Your task to perform on an android device: Search for Mexican restaurants on Maps Image 0: 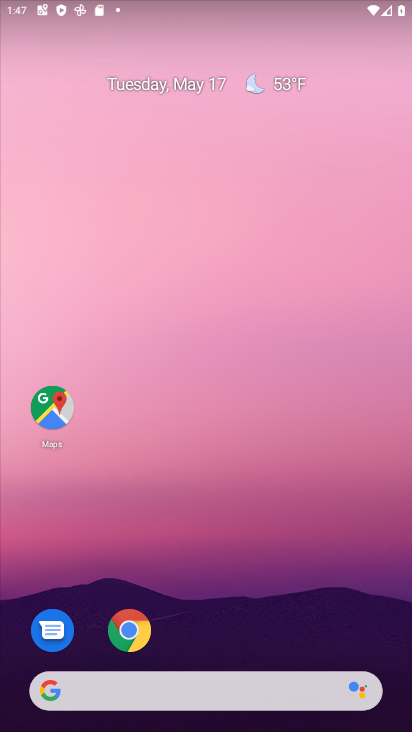
Step 0: drag from (250, 597) to (300, 285)
Your task to perform on an android device: Search for Mexican restaurants on Maps Image 1: 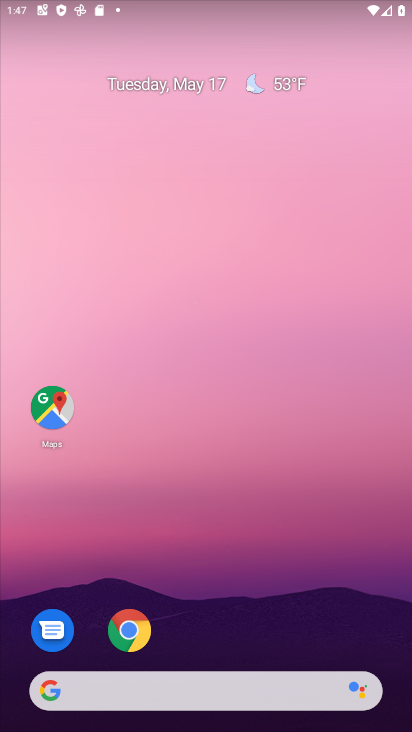
Step 1: drag from (270, 669) to (253, 127)
Your task to perform on an android device: Search for Mexican restaurants on Maps Image 2: 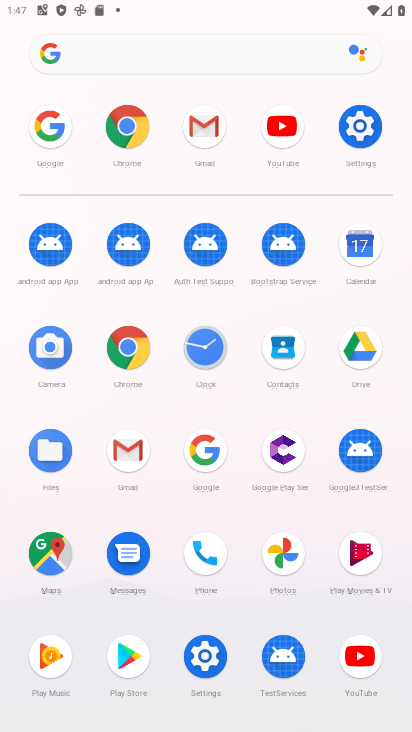
Step 2: click (58, 562)
Your task to perform on an android device: Search for Mexican restaurants on Maps Image 3: 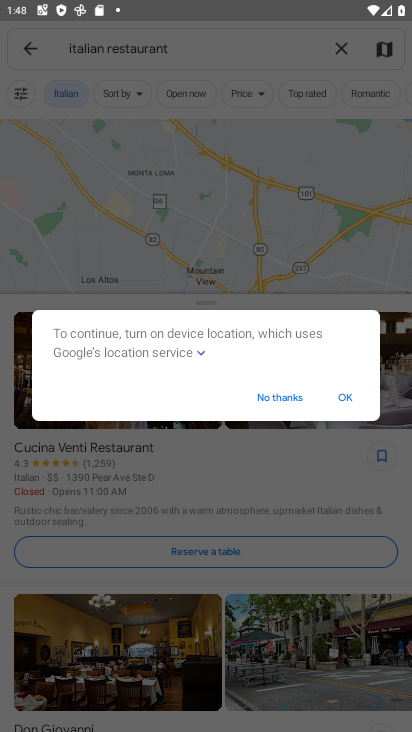
Step 3: click (337, 52)
Your task to perform on an android device: Search for Mexican restaurants on Maps Image 4: 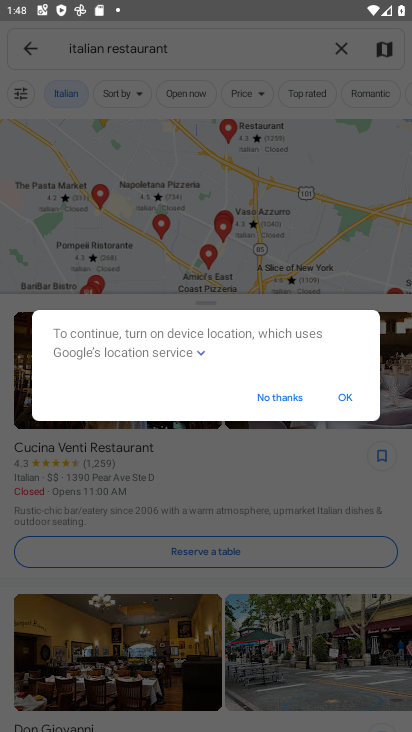
Step 4: click (277, 167)
Your task to perform on an android device: Search for Mexican restaurants on Maps Image 5: 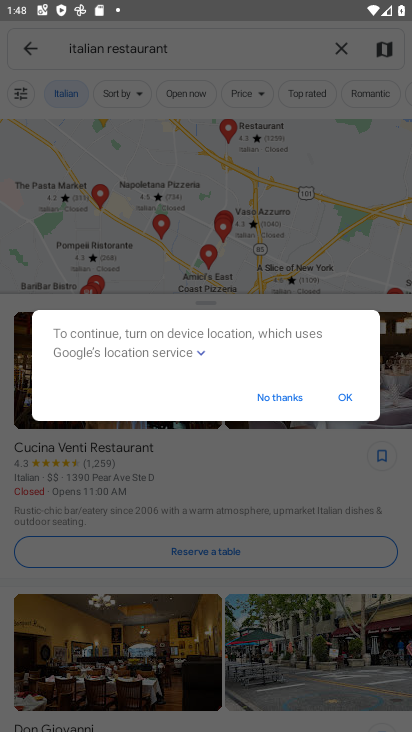
Step 5: click (340, 398)
Your task to perform on an android device: Search for Mexican restaurants on Maps Image 6: 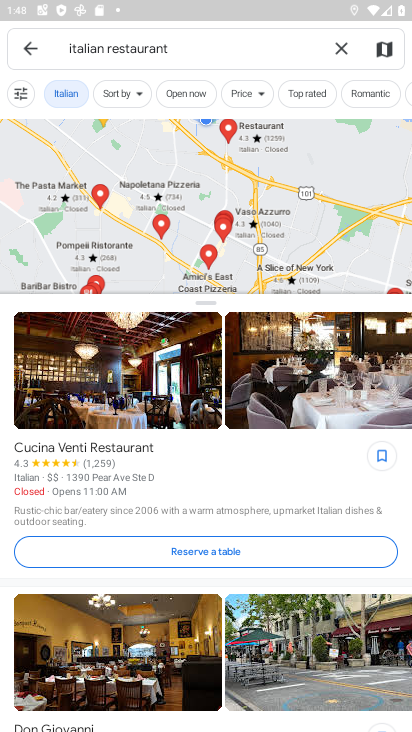
Step 6: click (334, 54)
Your task to perform on an android device: Search for Mexican restaurants on Maps Image 7: 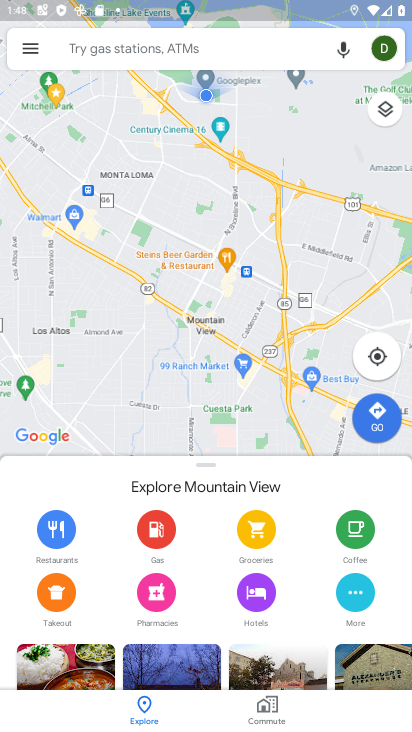
Step 7: click (200, 67)
Your task to perform on an android device: Search for Mexican restaurants on Maps Image 8: 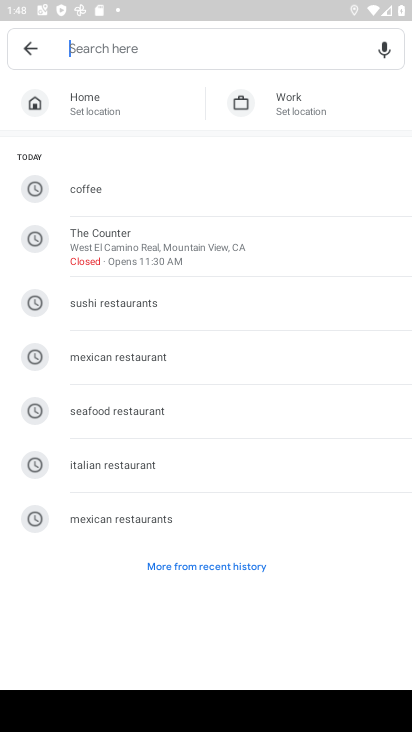
Step 8: click (151, 368)
Your task to perform on an android device: Search for Mexican restaurants on Maps Image 9: 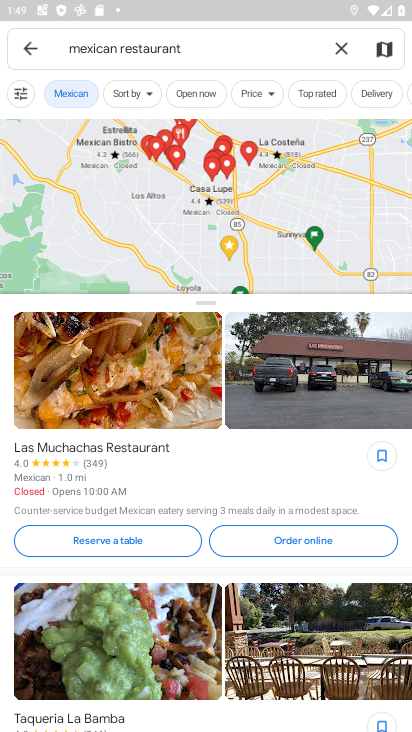
Step 9: task complete